Your task to perform on an android device: Empty the shopping cart on walmart.com. Add "dell xps" to the cart on walmart.com Image 0: 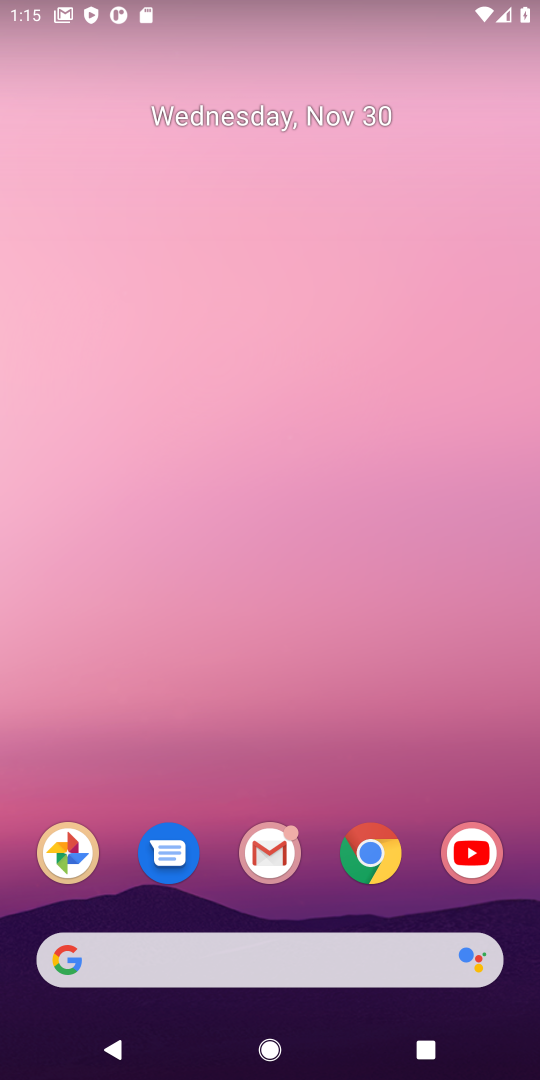
Step 0: click (373, 860)
Your task to perform on an android device: Empty the shopping cart on walmart.com. Add "dell xps" to the cart on walmart.com Image 1: 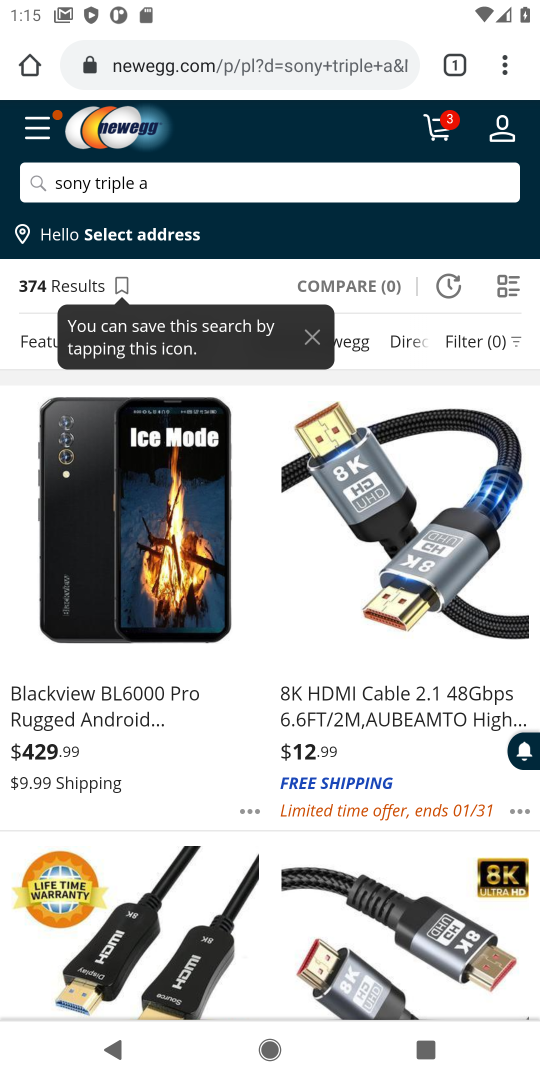
Step 1: click (220, 75)
Your task to perform on an android device: Empty the shopping cart on walmart.com. Add "dell xps" to the cart on walmart.com Image 2: 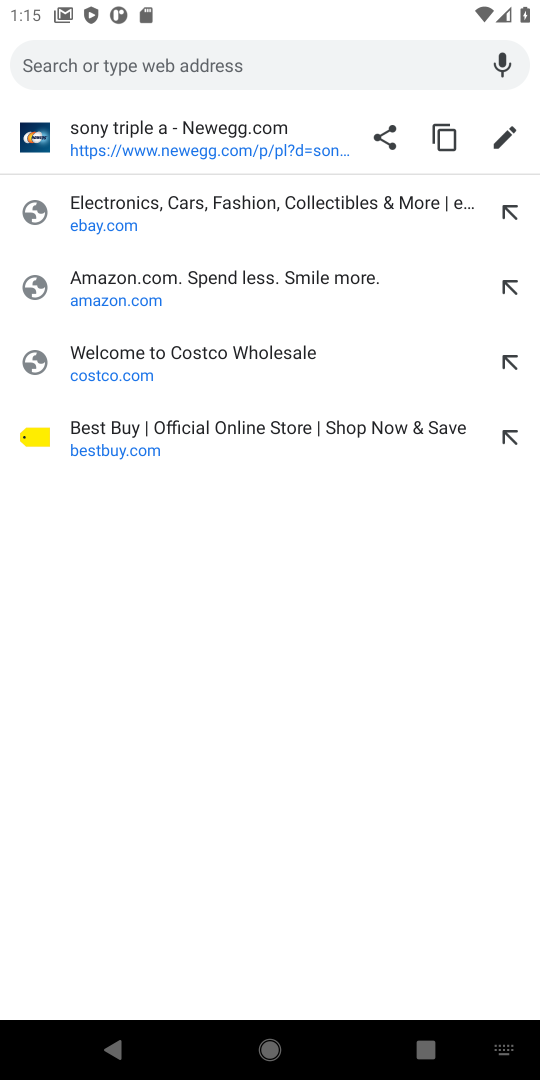
Step 2: type "walmart.com"
Your task to perform on an android device: Empty the shopping cart on walmart.com. Add "dell xps" to the cart on walmart.com Image 3: 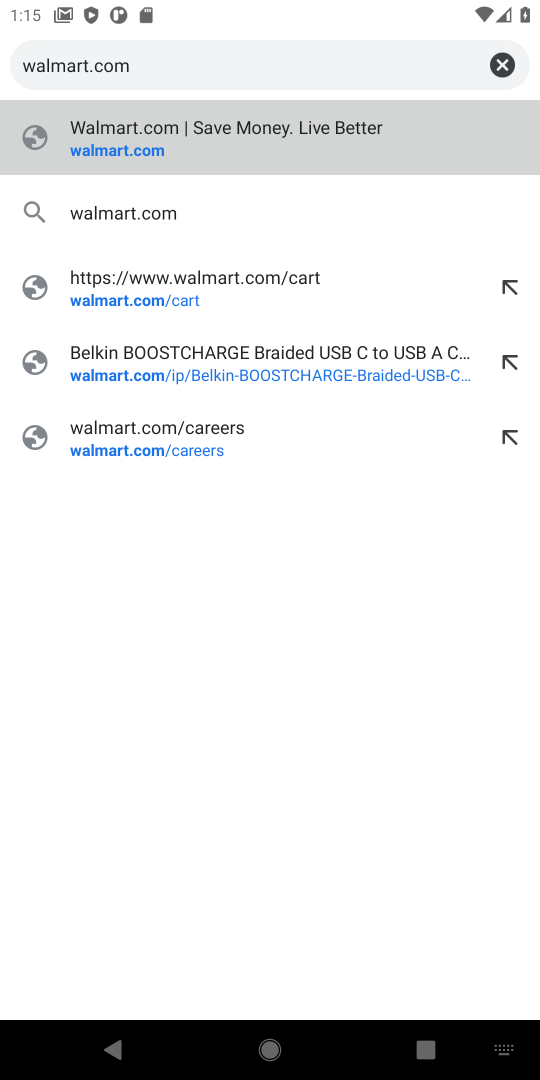
Step 3: click (129, 147)
Your task to perform on an android device: Empty the shopping cart on walmart.com. Add "dell xps" to the cart on walmart.com Image 4: 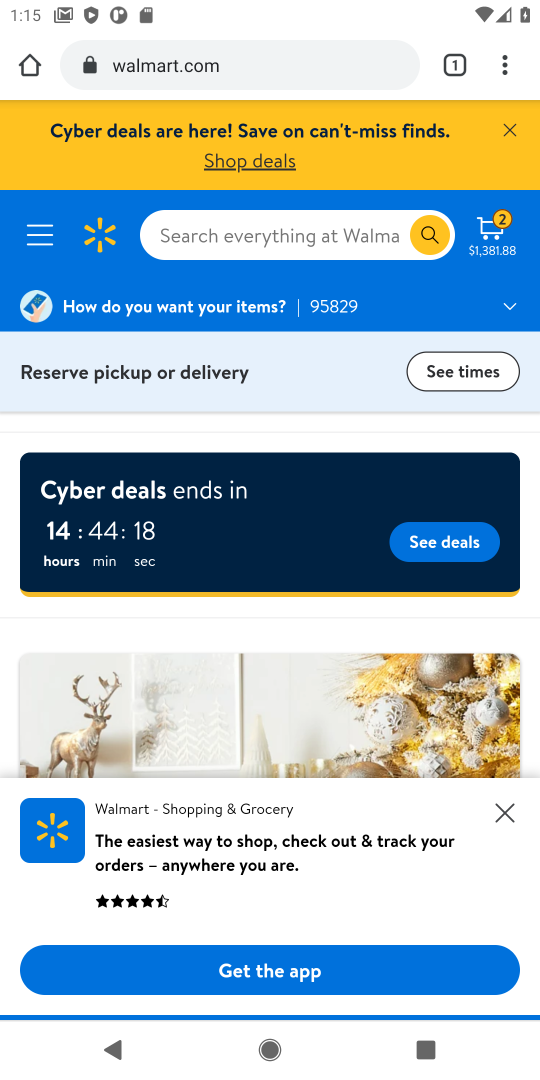
Step 4: click (497, 251)
Your task to perform on an android device: Empty the shopping cart on walmart.com. Add "dell xps" to the cart on walmart.com Image 5: 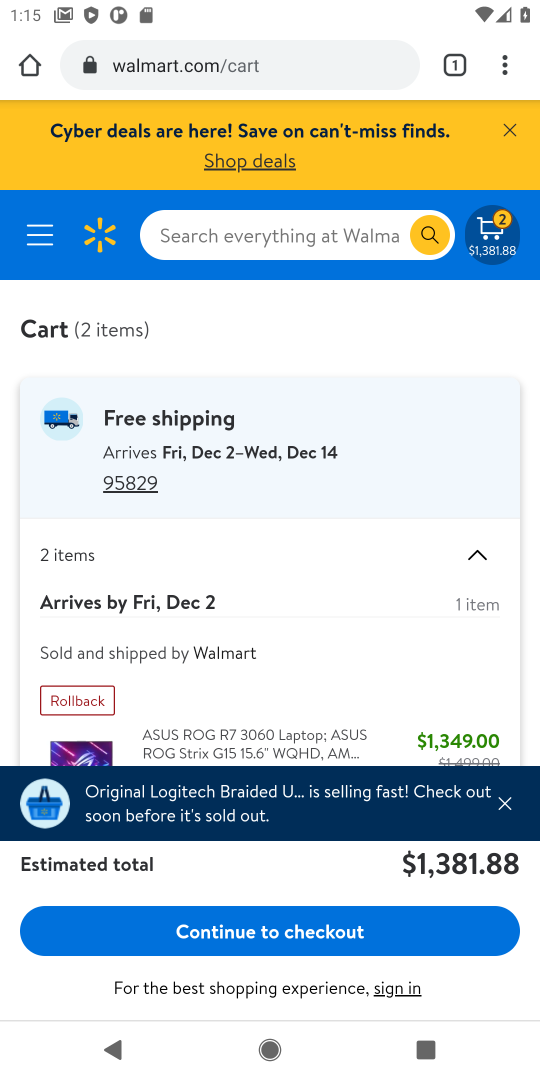
Step 5: drag from (440, 487) to (387, 251)
Your task to perform on an android device: Empty the shopping cart on walmart.com. Add "dell xps" to the cart on walmart.com Image 6: 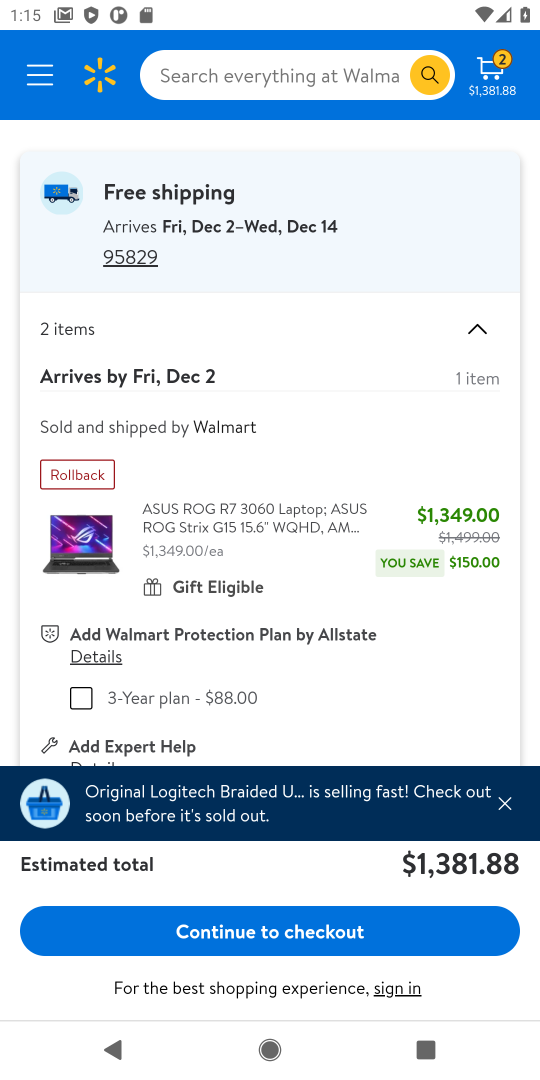
Step 6: click (503, 805)
Your task to perform on an android device: Empty the shopping cart on walmart.com. Add "dell xps" to the cart on walmart.com Image 7: 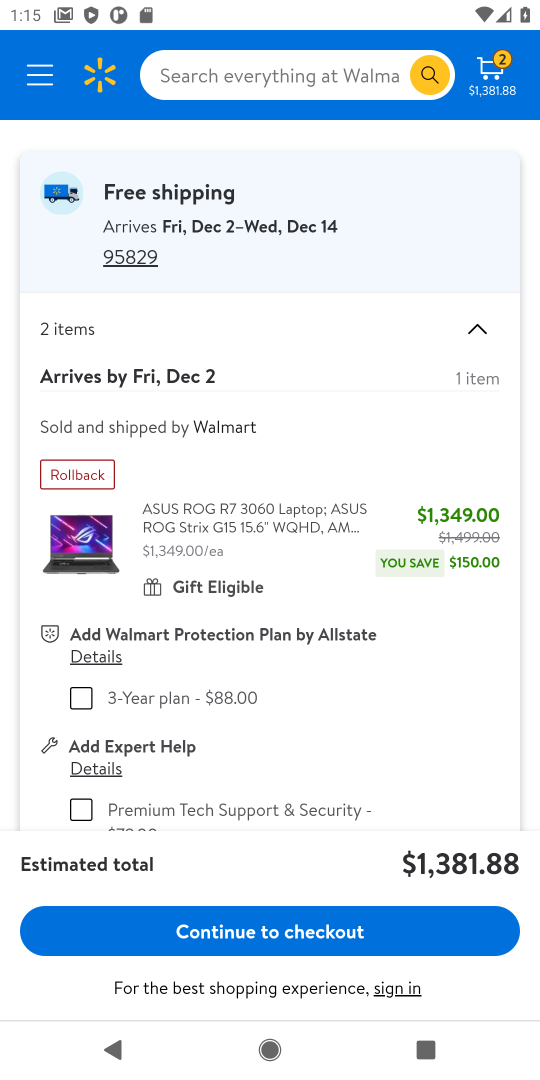
Step 7: drag from (262, 725) to (235, 452)
Your task to perform on an android device: Empty the shopping cart on walmart.com. Add "dell xps" to the cart on walmart.com Image 8: 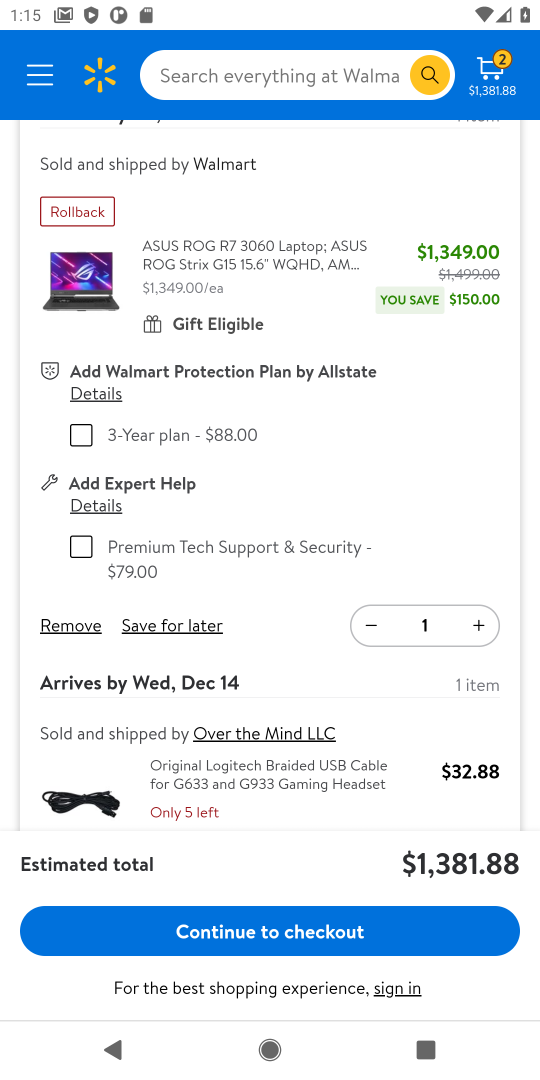
Step 8: click (65, 631)
Your task to perform on an android device: Empty the shopping cart on walmart.com. Add "dell xps" to the cart on walmart.com Image 9: 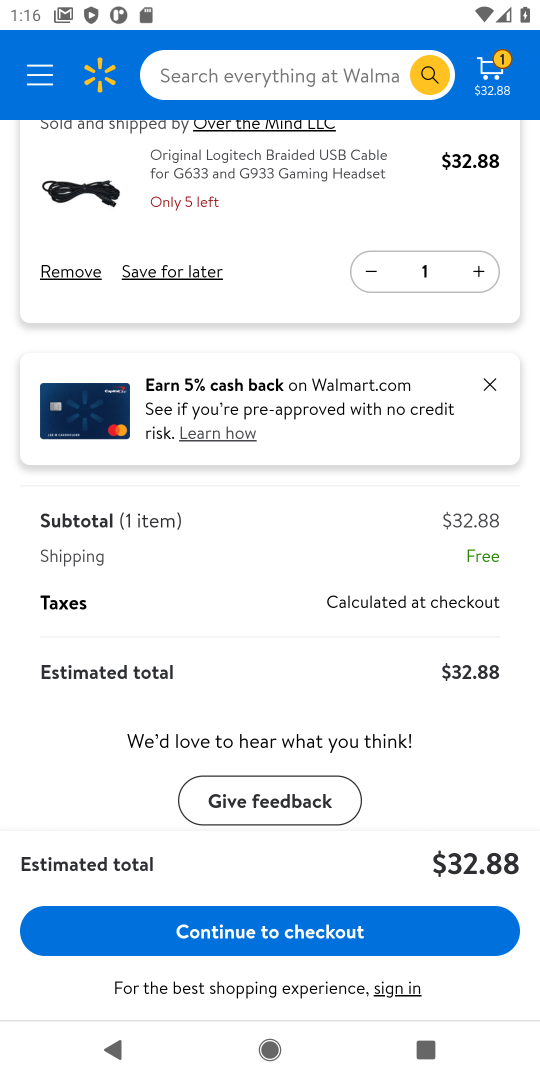
Step 9: click (65, 279)
Your task to perform on an android device: Empty the shopping cart on walmart.com. Add "dell xps" to the cart on walmart.com Image 10: 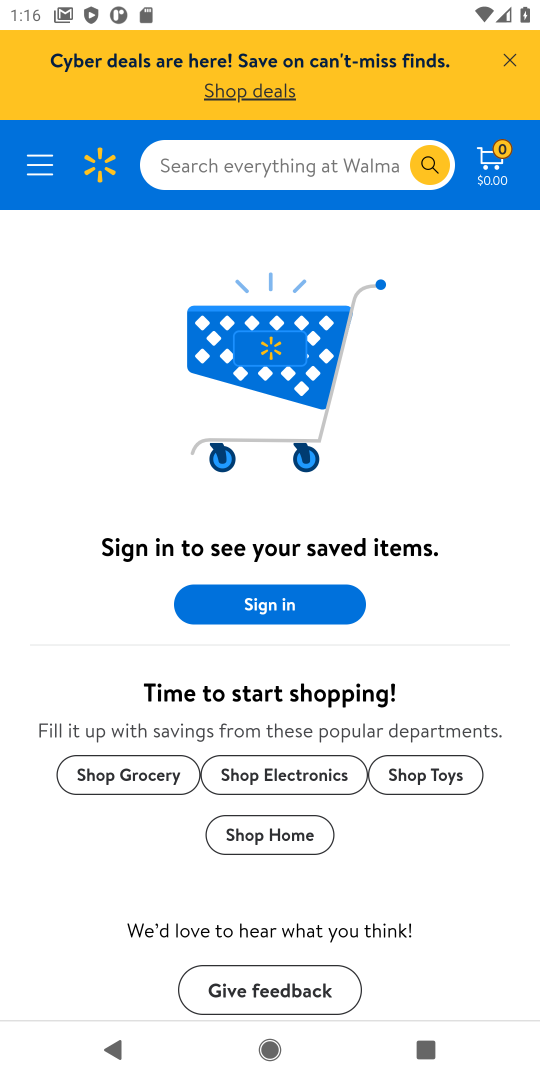
Step 10: drag from (411, 477) to (444, 655)
Your task to perform on an android device: Empty the shopping cart on walmart.com. Add "dell xps" to the cart on walmart.com Image 11: 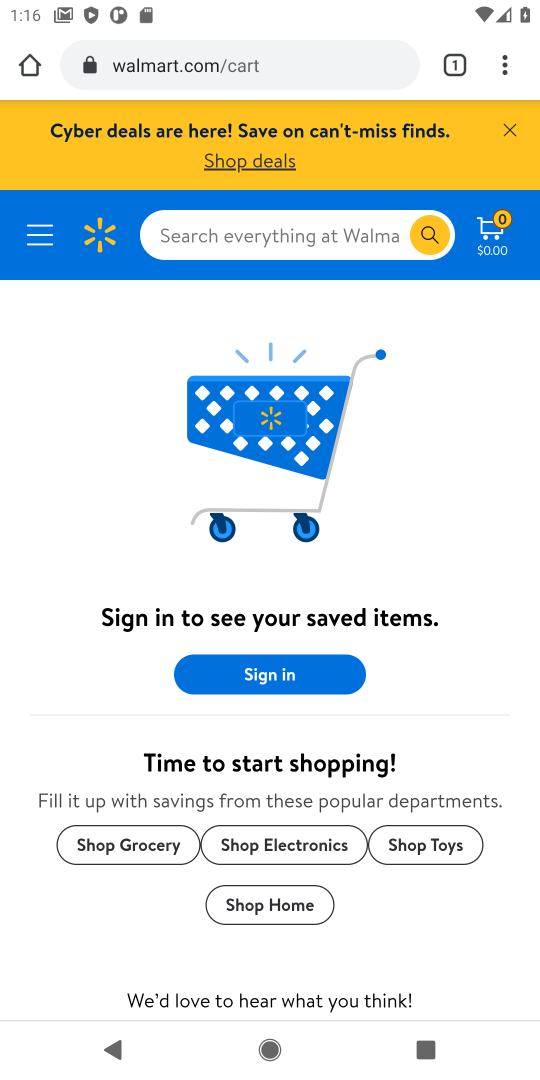
Step 11: click (178, 237)
Your task to perform on an android device: Empty the shopping cart on walmart.com. Add "dell xps" to the cart on walmart.com Image 12: 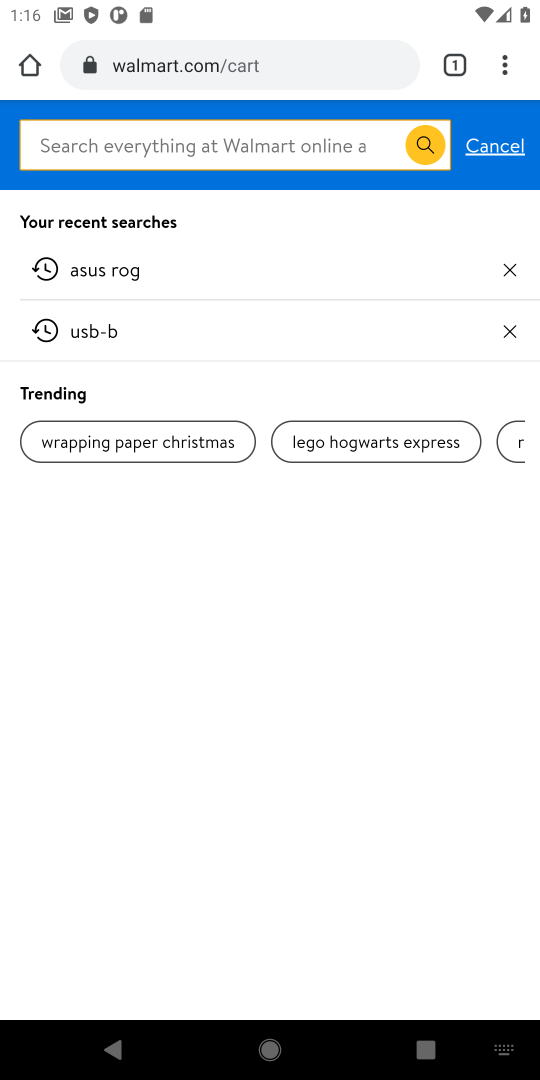
Step 12: type "dell xps"
Your task to perform on an android device: Empty the shopping cart on walmart.com. Add "dell xps" to the cart on walmart.com Image 13: 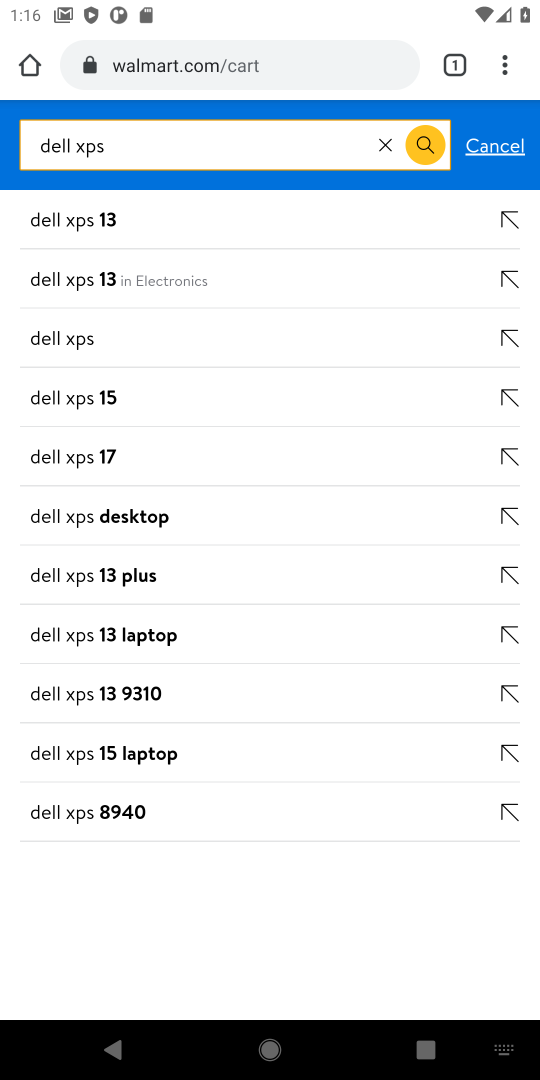
Step 13: click (47, 337)
Your task to perform on an android device: Empty the shopping cart on walmart.com. Add "dell xps" to the cart on walmart.com Image 14: 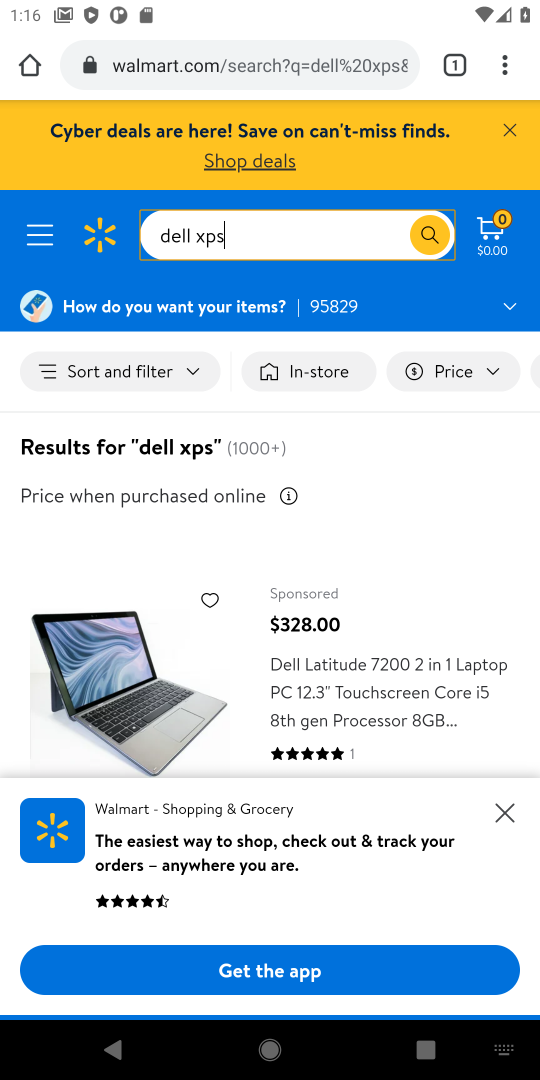
Step 14: drag from (203, 572) to (167, 340)
Your task to perform on an android device: Empty the shopping cart on walmart.com. Add "dell xps" to the cart on walmart.com Image 15: 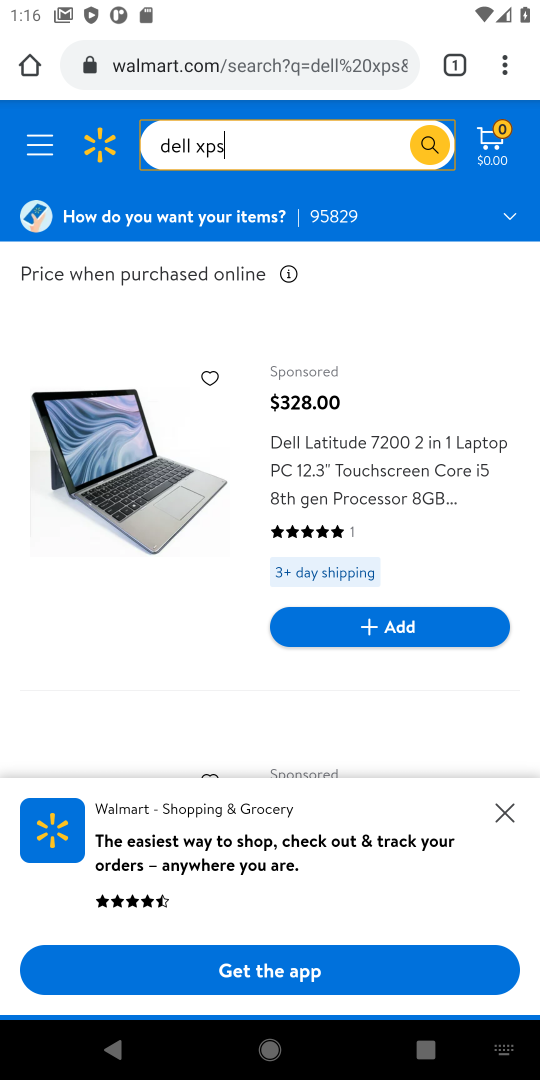
Step 15: drag from (188, 650) to (170, 377)
Your task to perform on an android device: Empty the shopping cart on walmart.com. Add "dell xps" to the cart on walmart.com Image 16: 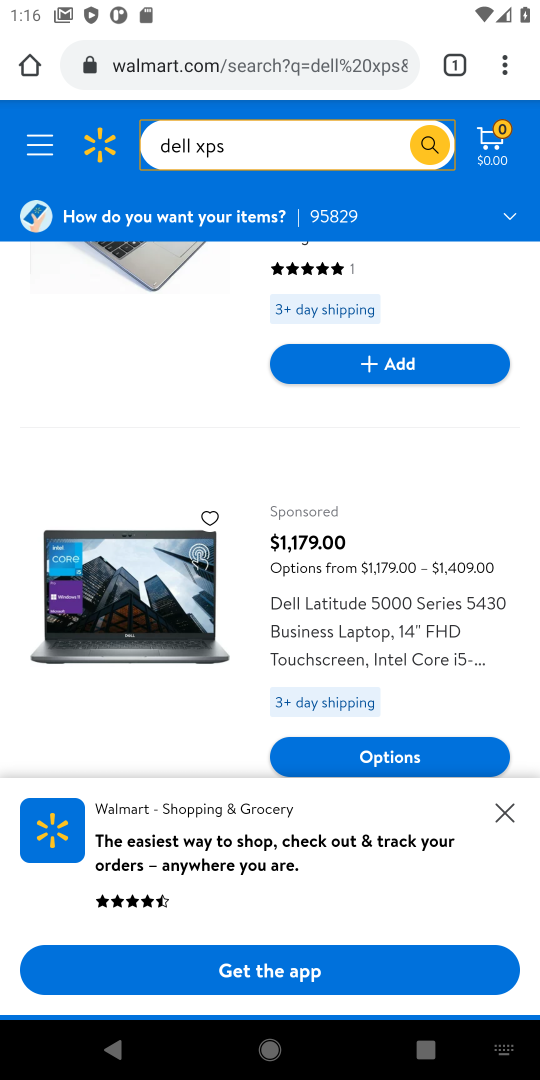
Step 16: drag from (174, 647) to (173, 457)
Your task to perform on an android device: Empty the shopping cart on walmart.com. Add "dell xps" to the cart on walmart.com Image 17: 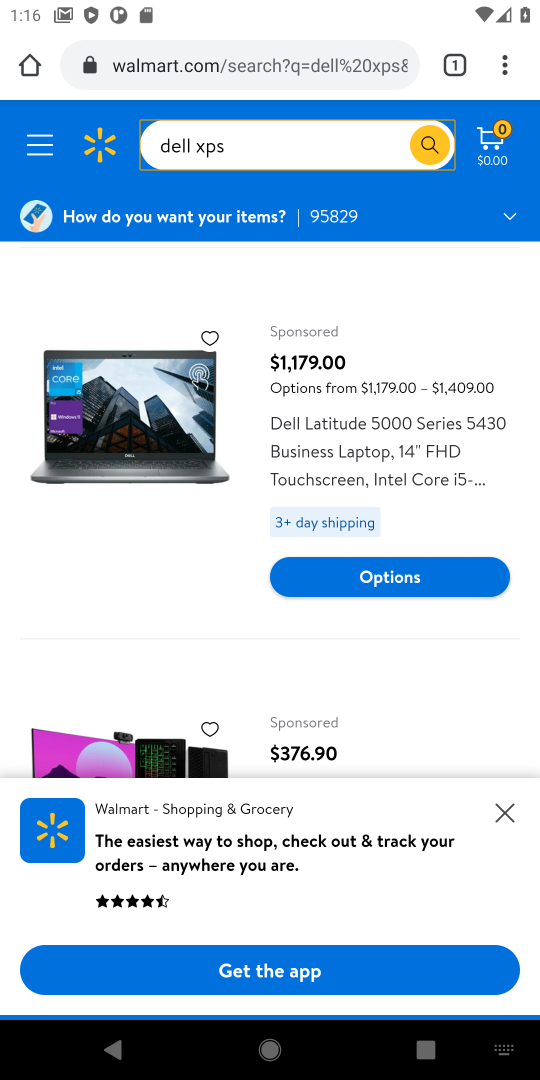
Step 17: drag from (197, 645) to (200, 379)
Your task to perform on an android device: Empty the shopping cart on walmart.com. Add "dell xps" to the cart on walmart.com Image 18: 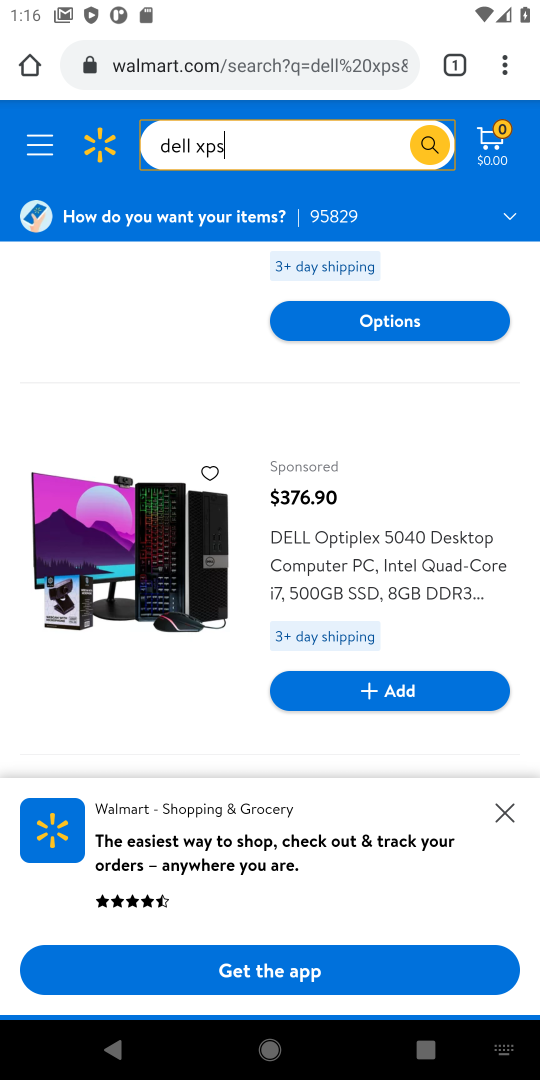
Step 18: drag from (229, 660) to (219, 343)
Your task to perform on an android device: Empty the shopping cart on walmart.com. Add "dell xps" to the cart on walmart.com Image 19: 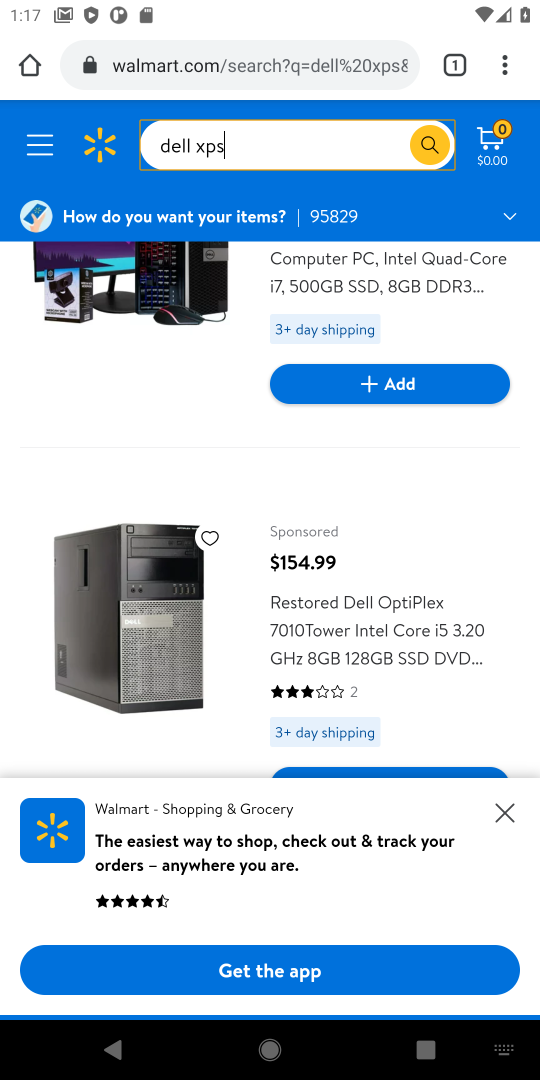
Step 19: drag from (213, 717) to (200, 388)
Your task to perform on an android device: Empty the shopping cart on walmart.com. Add "dell xps" to the cart on walmart.com Image 20: 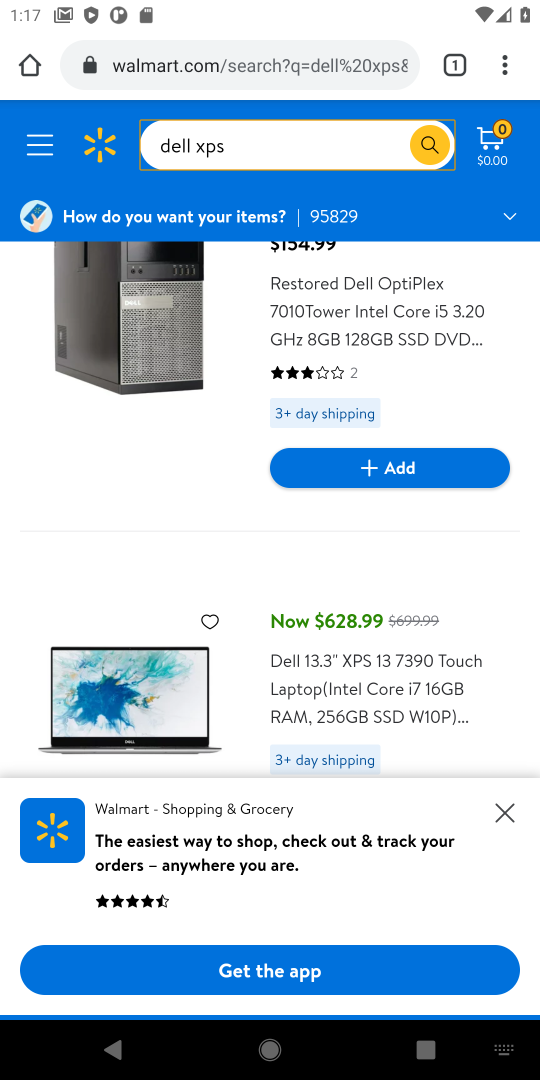
Step 20: drag from (215, 619) to (209, 432)
Your task to perform on an android device: Empty the shopping cart on walmart.com. Add "dell xps" to the cart on walmart.com Image 21: 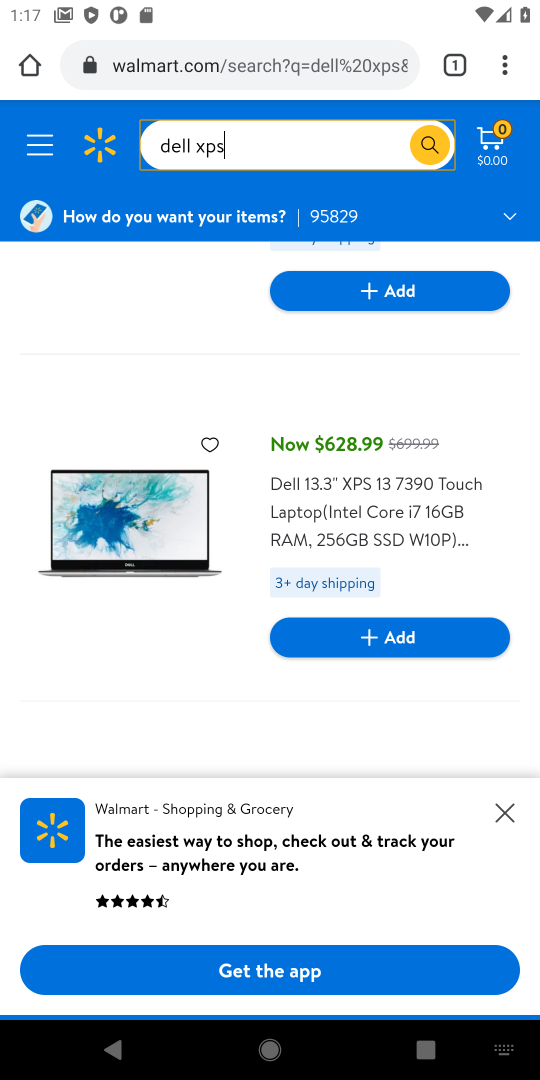
Step 21: click (382, 656)
Your task to perform on an android device: Empty the shopping cart on walmart.com. Add "dell xps" to the cart on walmart.com Image 22: 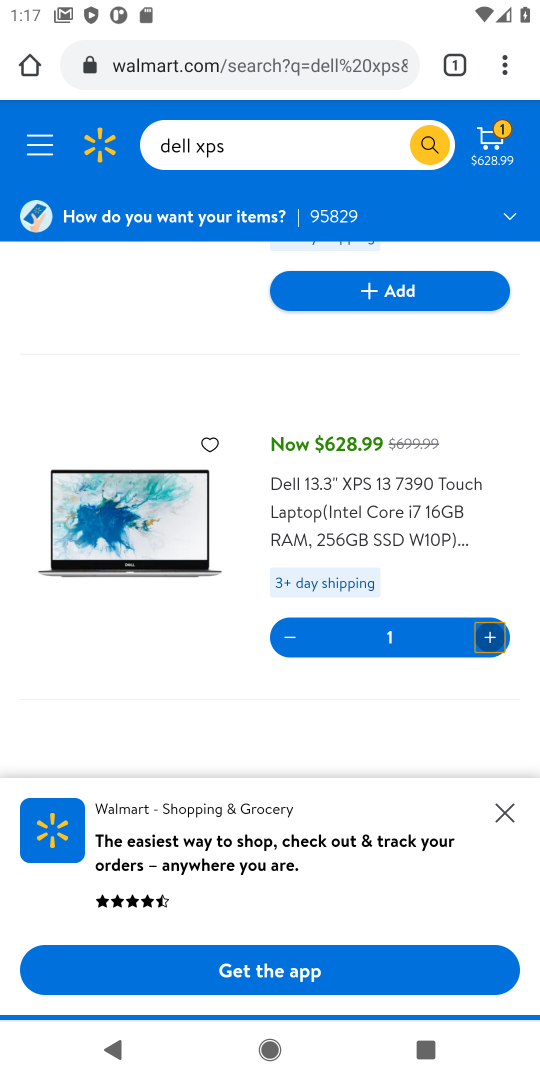
Step 22: task complete